Your task to perform on an android device: Play the last video I watched on Youtube Image 0: 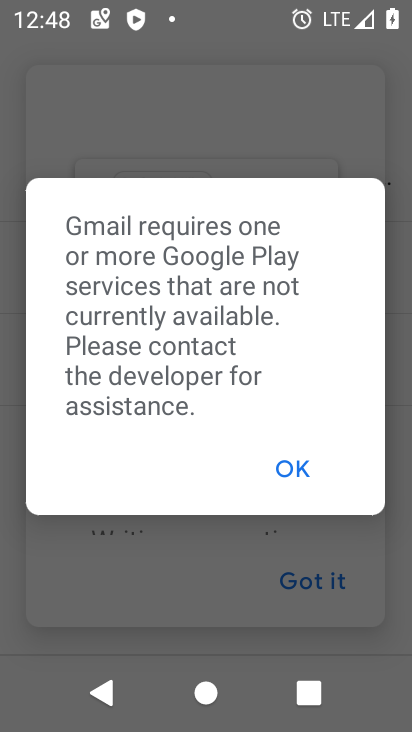
Step 0: press home button
Your task to perform on an android device: Play the last video I watched on Youtube Image 1: 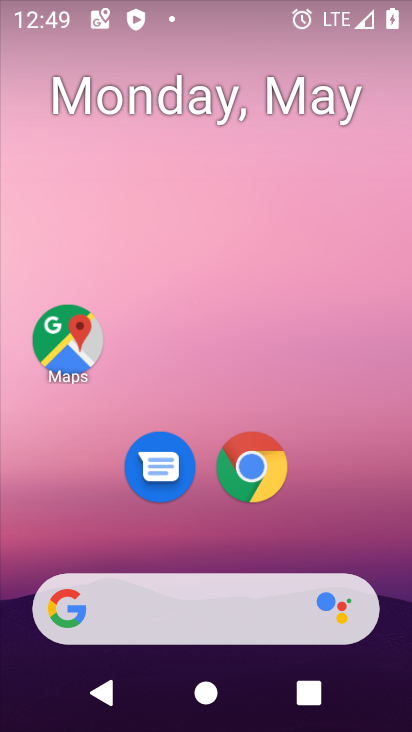
Step 1: drag from (380, 572) to (310, 29)
Your task to perform on an android device: Play the last video I watched on Youtube Image 2: 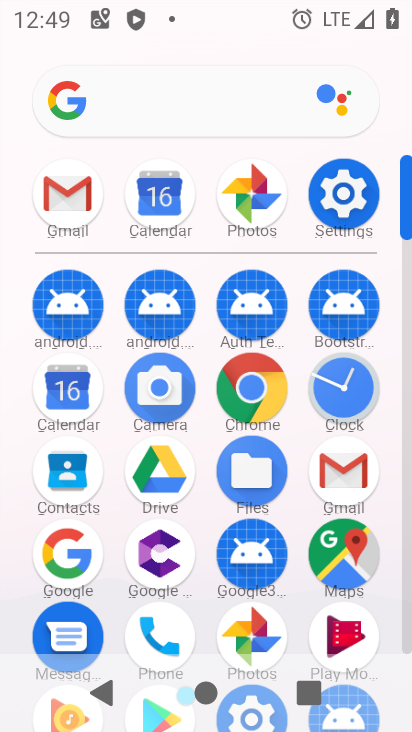
Step 2: drag from (403, 580) to (406, 544)
Your task to perform on an android device: Play the last video I watched on Youtube Image 3: 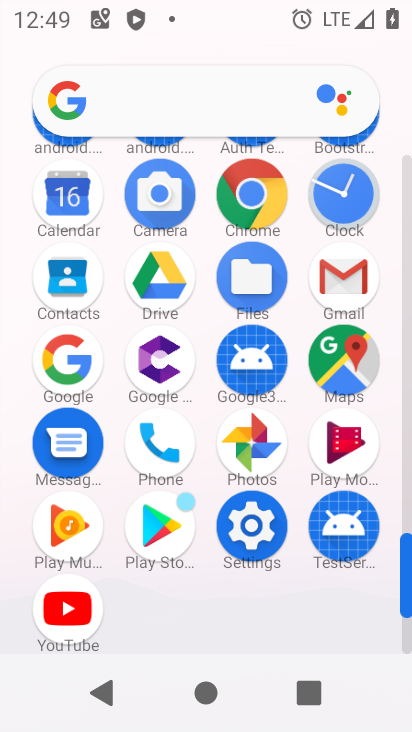
Step 3: click (55, 614)
Your task to perform on an android device: Play the last video I watched on Youtube Image 4: 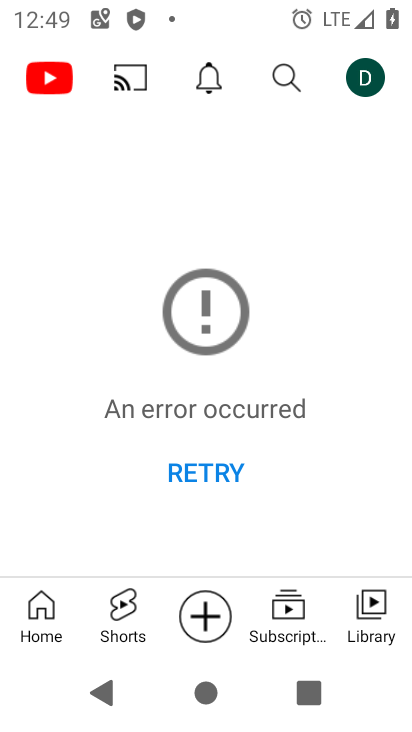
Step 4: click (365, 625)
Your task to perform on an android device: Play the last video I watched on Youtube Image 5: 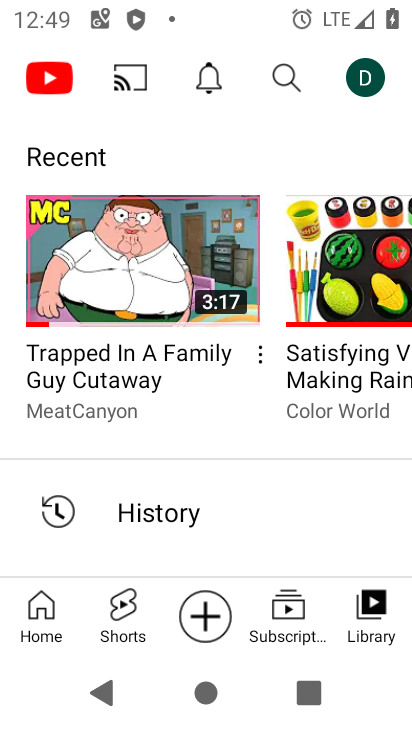
Step 5: click (96, 508)
Your task to perform on an android device: Play the last video I watched on Youtube Image 6: 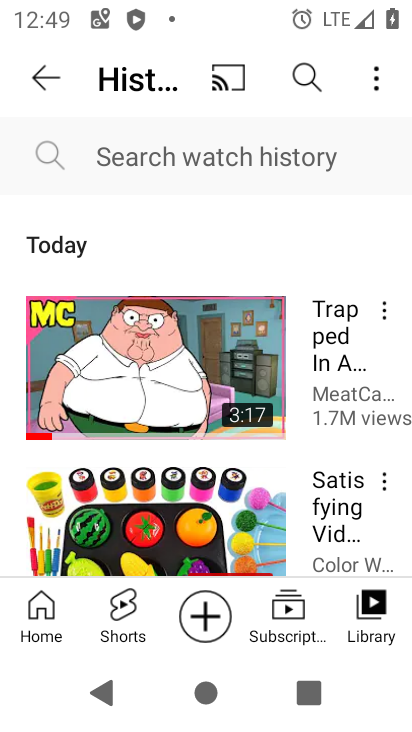
Step 6: click (161, 392)
Your task to perform on an android device: Play the last video I watched on Youtube Image 7: 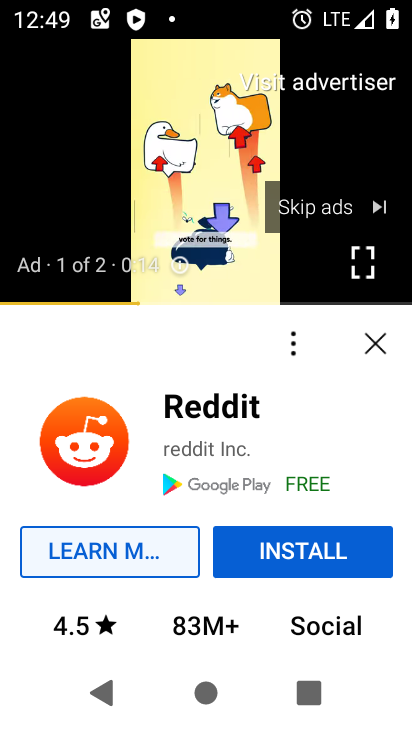
Step 7: click (354, 209)
Your task to perform on an android device: Play the last video I watched on Youtube Image 8: 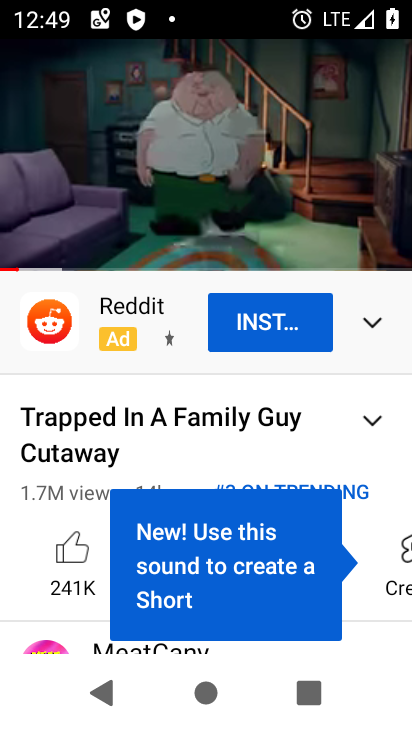
Step 8: click (184, 197)
Your task to perform on an android device: Play the last video I watched on Youtube Image 9: 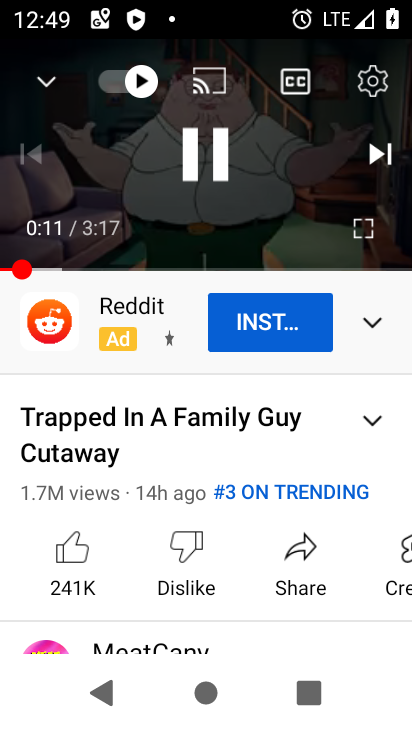
Step 9: click (210, 164)
Your task to perform on an android device: Play the last video I watched on Youtube Image 10: 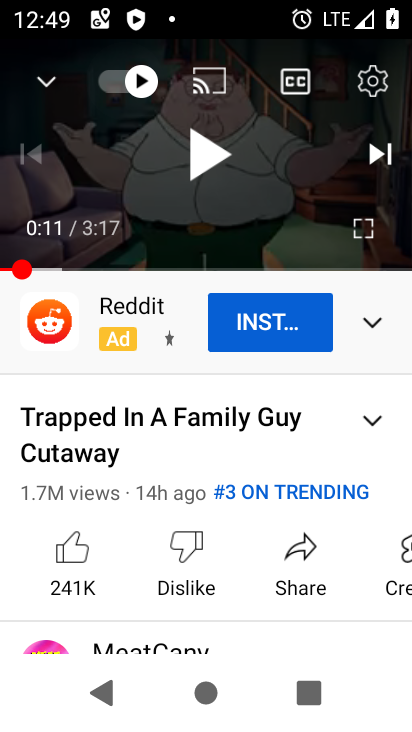
Step 10: task complete